Your task to perform on an android device: What's on my calendar tomorrow? Image 0: 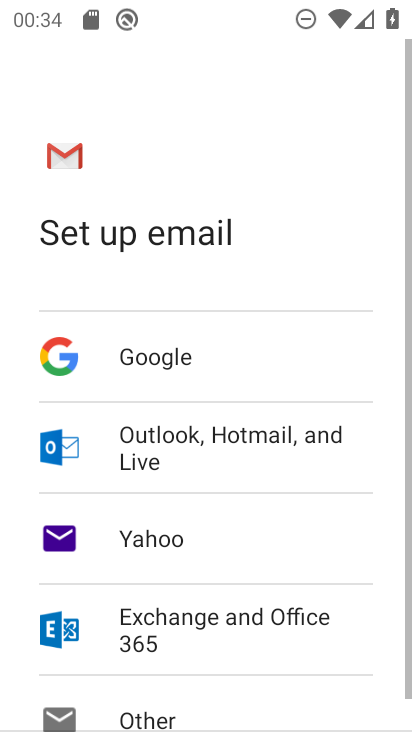
Step 0: press home button
Your task to perform on an android device: What's on my calendar tomorrow? Image 1: 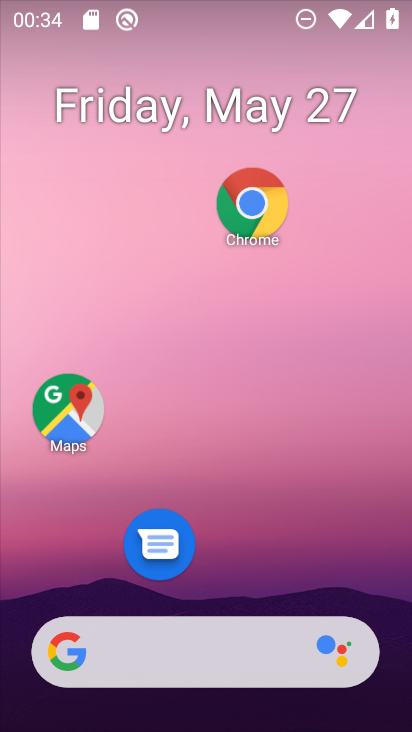
Step 1: drag from (195, 587) to (128, 141)
Your task to perform on an android device: What's on my calendar tomorrow? Image 2: 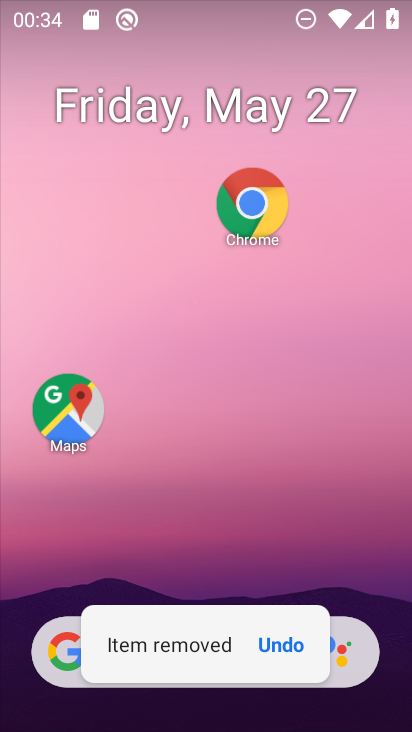
Step 2: drag from (224, 584) to (139, 64)
Your task to perform on an android device: What's on my calendar tomorrow? Image 3: 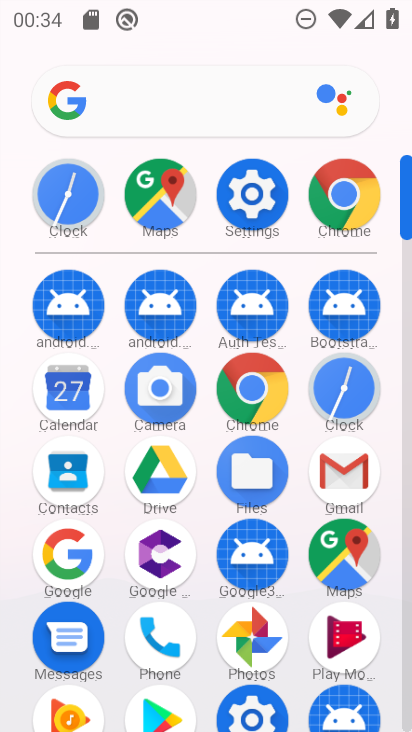
Step 3: click (52, 393)
Your task to perform on an android device: What's on my calendar tomorrow? Image 4: 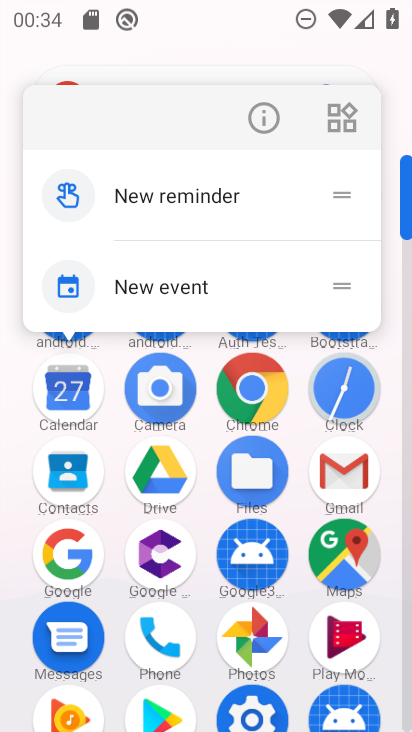
Step 4: click (267, 114)
Your task to perform on an android device: What's on my calendar tomorrow? Image 5: 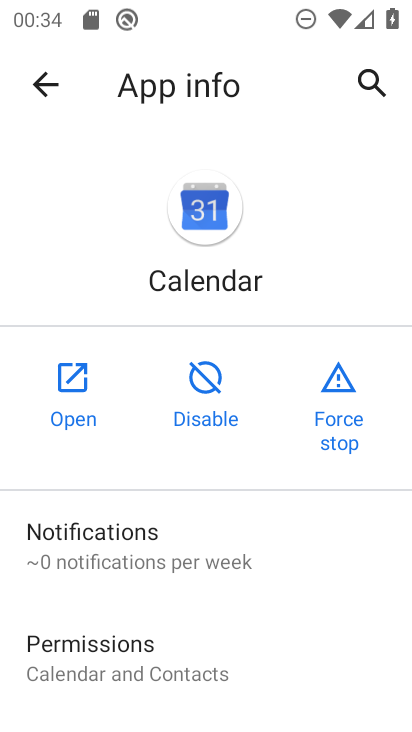
Step 5: click (73, 379)
Your task to perform on an android device: What's on my calendar tomorrow? Image 6: 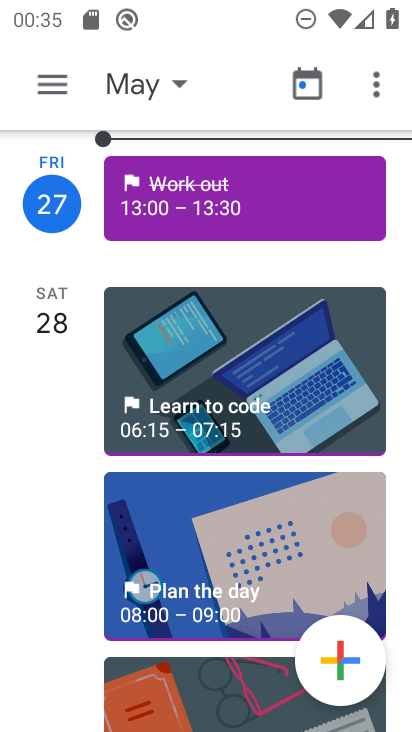
Step 6: task complete